Your task to perform on an android device: open chrome privacy settings Image 0: 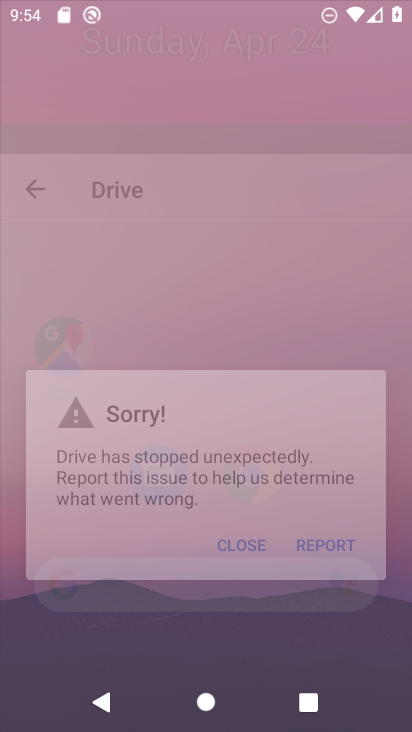
Step 0: drag from (382, 611) to (334, 111)
Your task to perform on an android device: open chrome privacy settings Image 1: 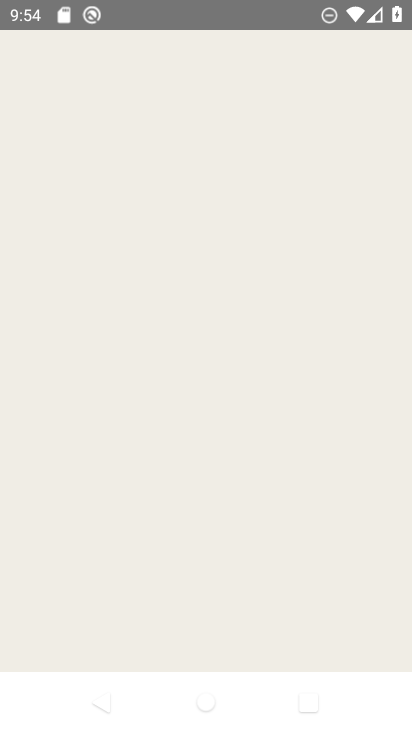
Step 1: press home button
Your task to perform on an android device: open chrome privacy settings Image 2: 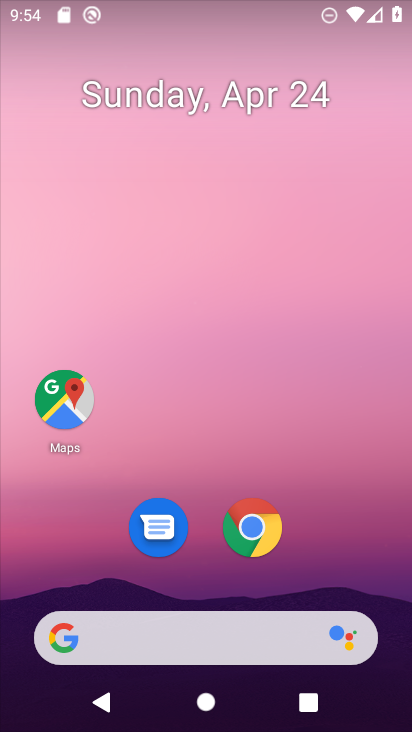
Step 2: drag from (388, 626) to (311, 90)
Your task to perform on an android device: open chrome privacy settings Image 3: 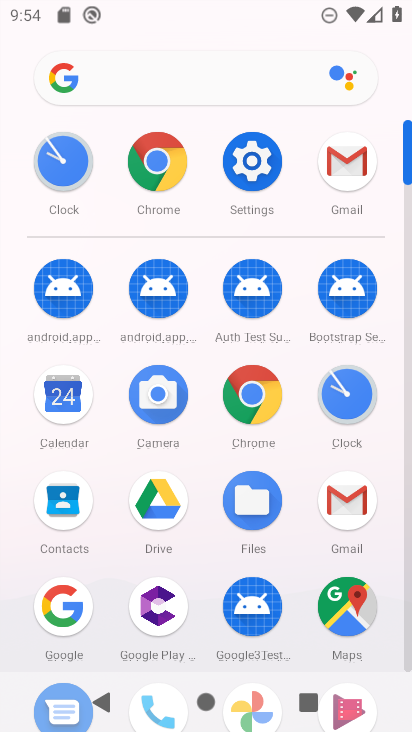
Step 3: click (262, 394)
Your task to perform on an android device: open chrome privacy settings Image 4: 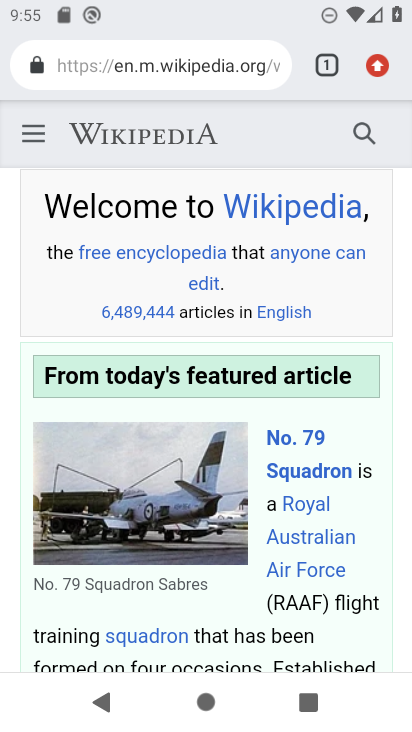
Step 4: press back button
Your task to perform on an android device: open chrome privacy settings Image 5: 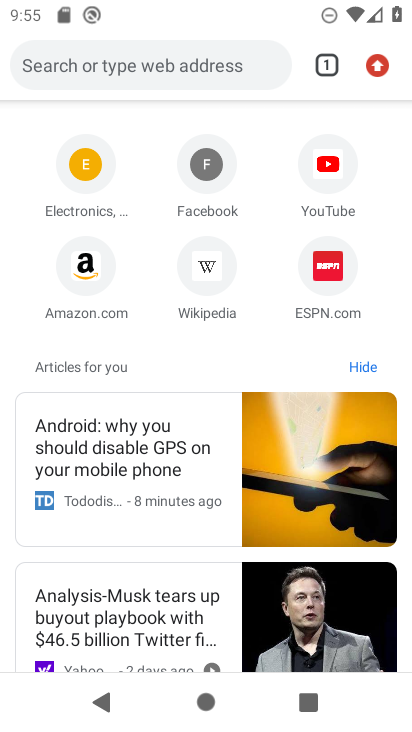
Step 5: click (371, 66)
Your task to perform on an android device: open chrome privacy settings Image 6: 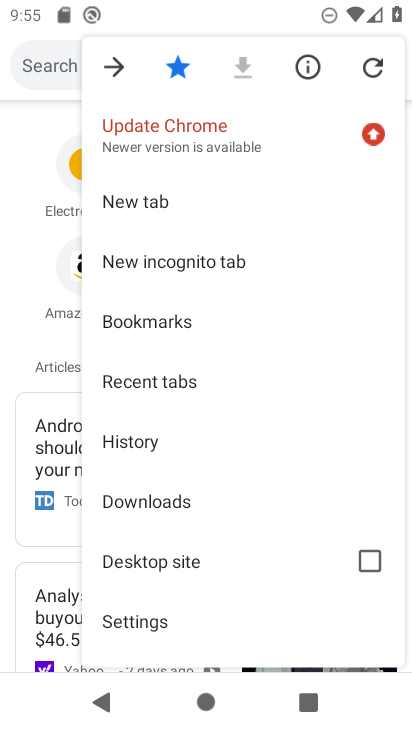
Step 6: click (171, 621)
Your task to perform on an android device: open chrome privacy settings Image 7: 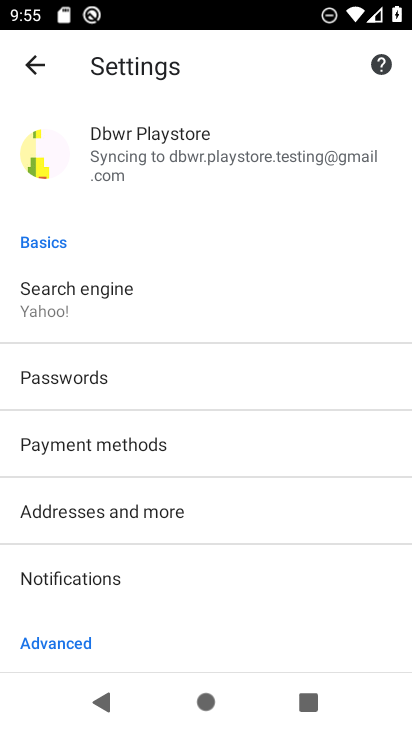
Step 7: drag from (168, 609) to (239, 206)
Your task to perform on an android device: open chrome privacy settings Image 8: 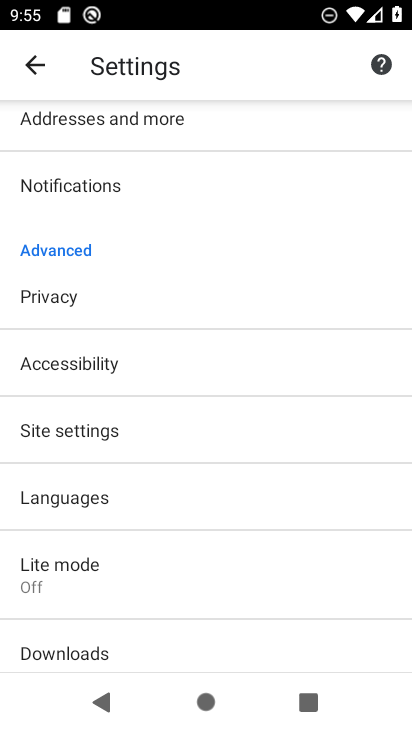
Step 8: click (113, 321)
Your task to perform on an android device: open chrome privacy settings Image 9: 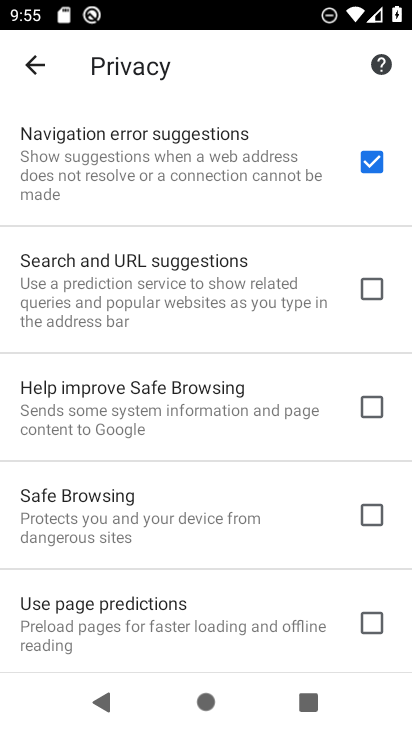
Step 9: task complete